Your task to perform on an android device: What is the news today? Image 0: 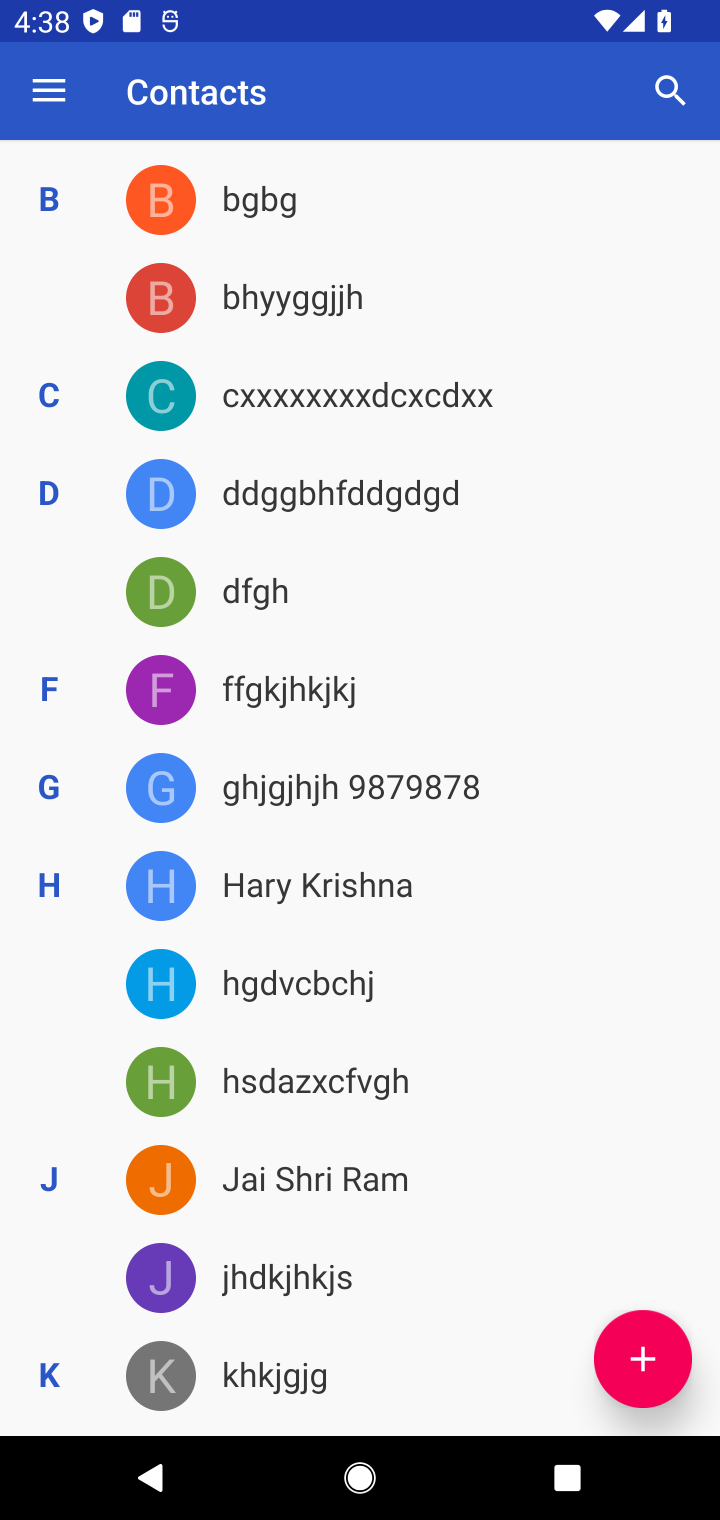
Step 0: press home button
Your task to perform on an android device: What is the news today? Image 1: 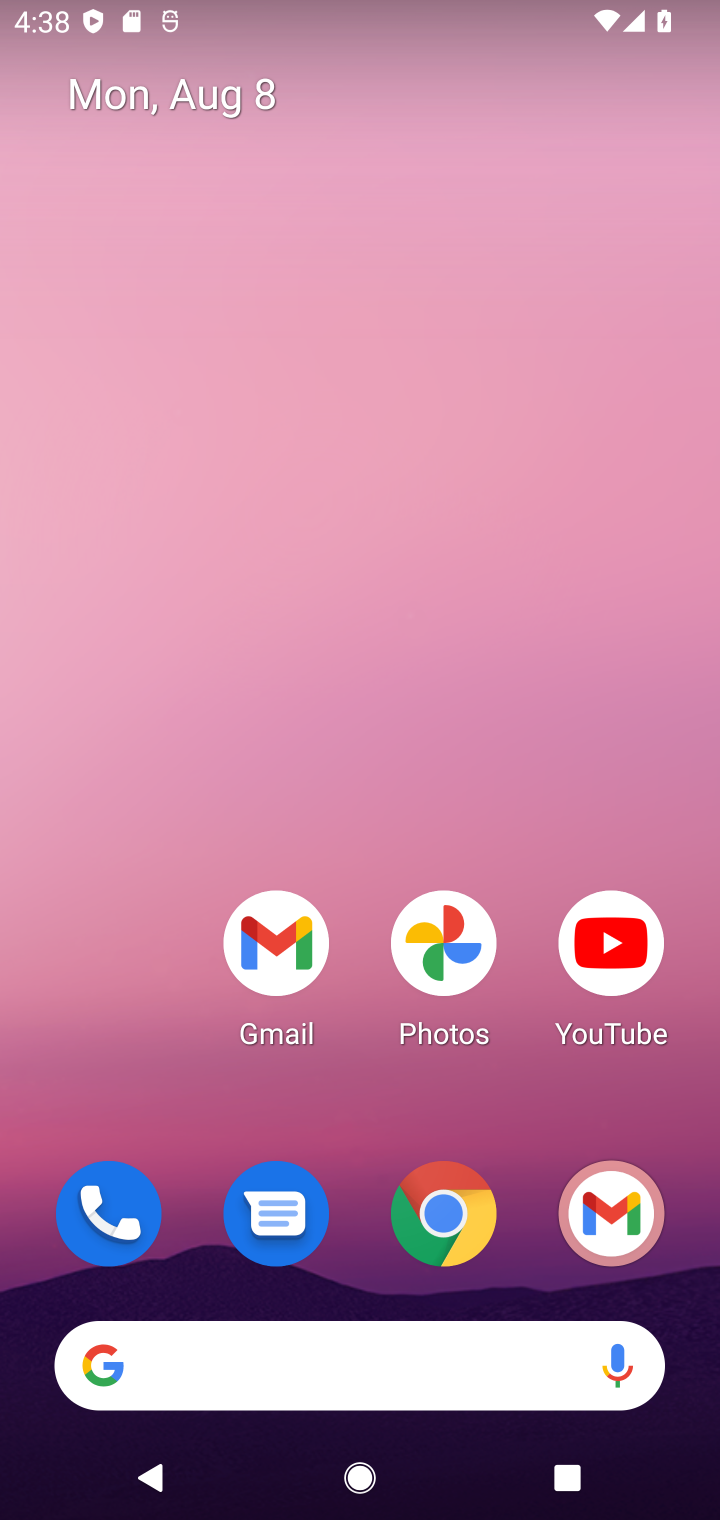
Step 1: click (333, 1353)
Your task to perform on an android device: What is the news today? Image 2: 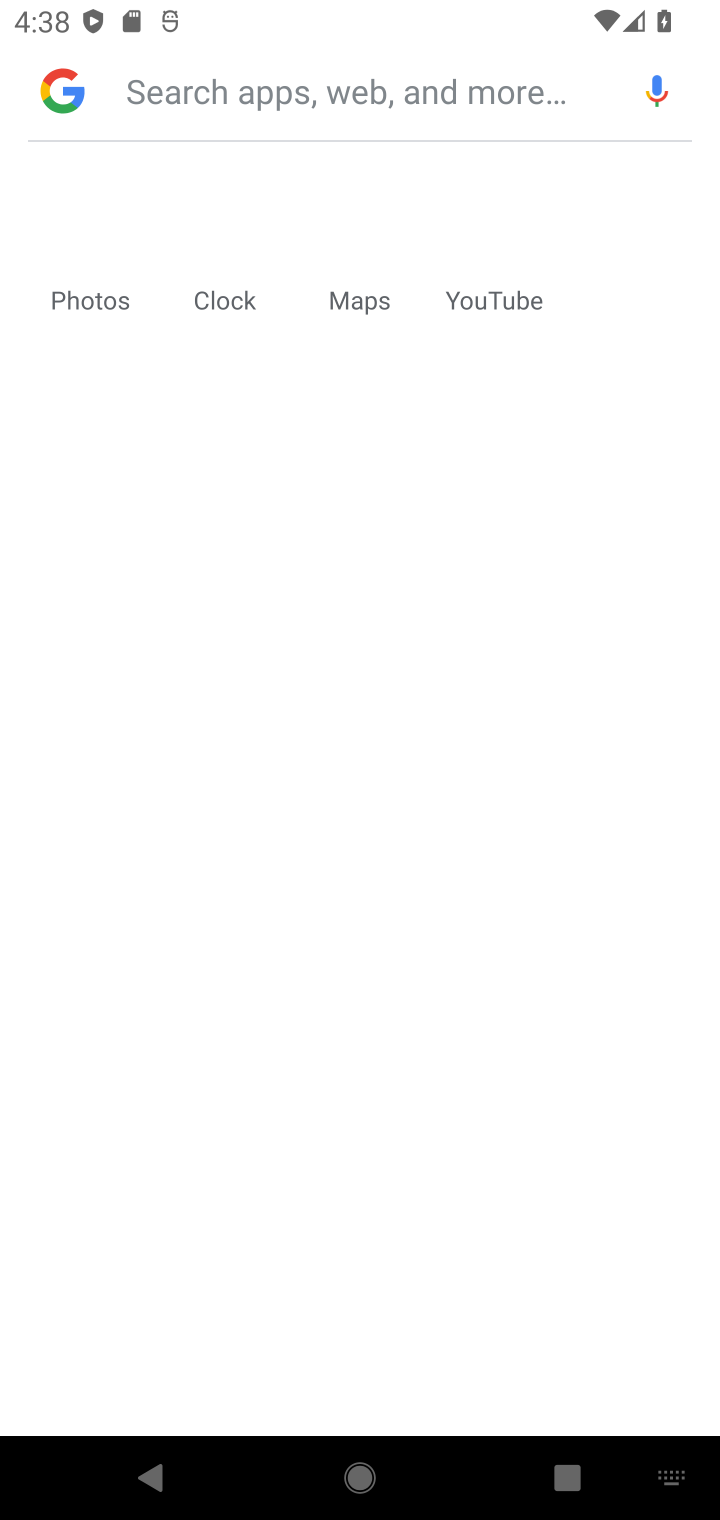
Step 2: type "what is tthe news today"
Your task to perform on an android device: What is the news today? Image 3: 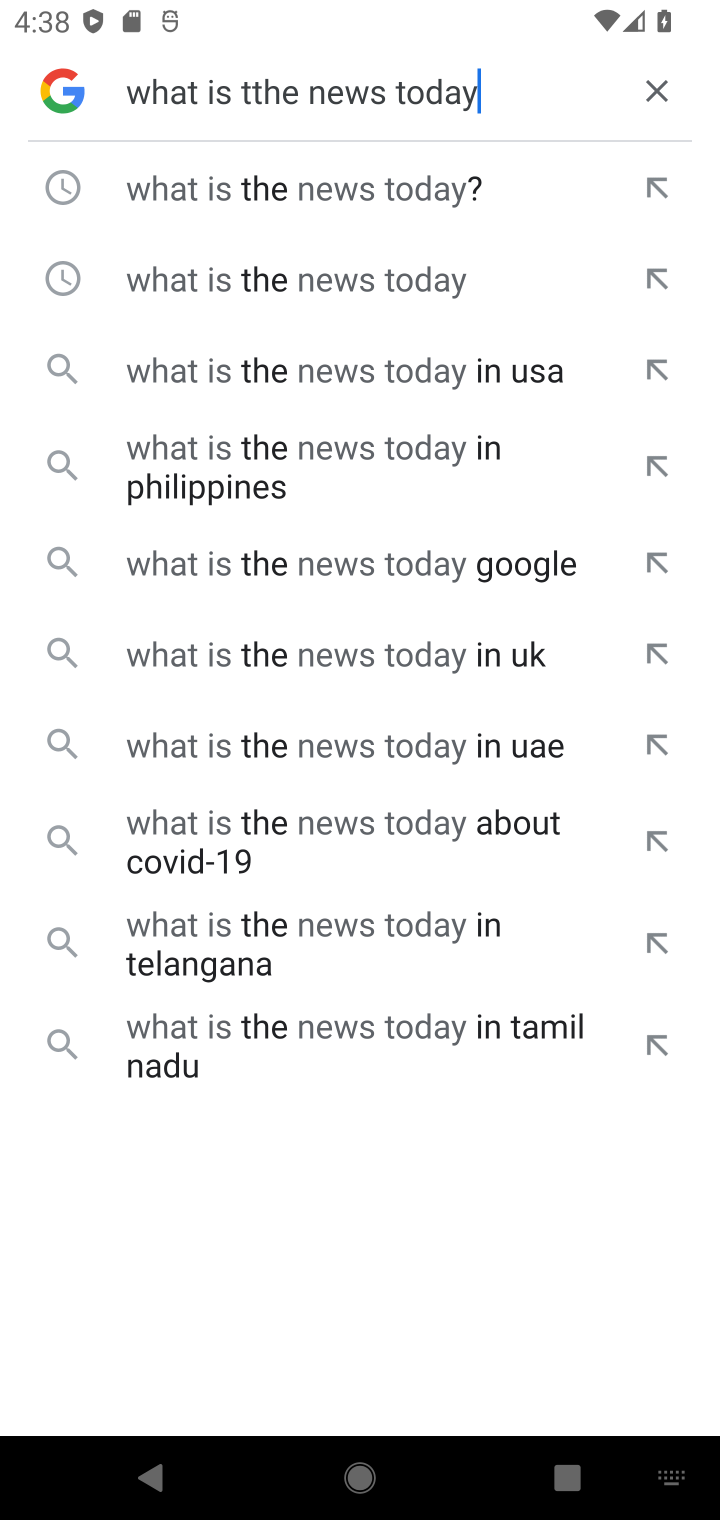
Step 3: click (422, 195)
Your task to perform on an android device: What is the news today? Image 4: 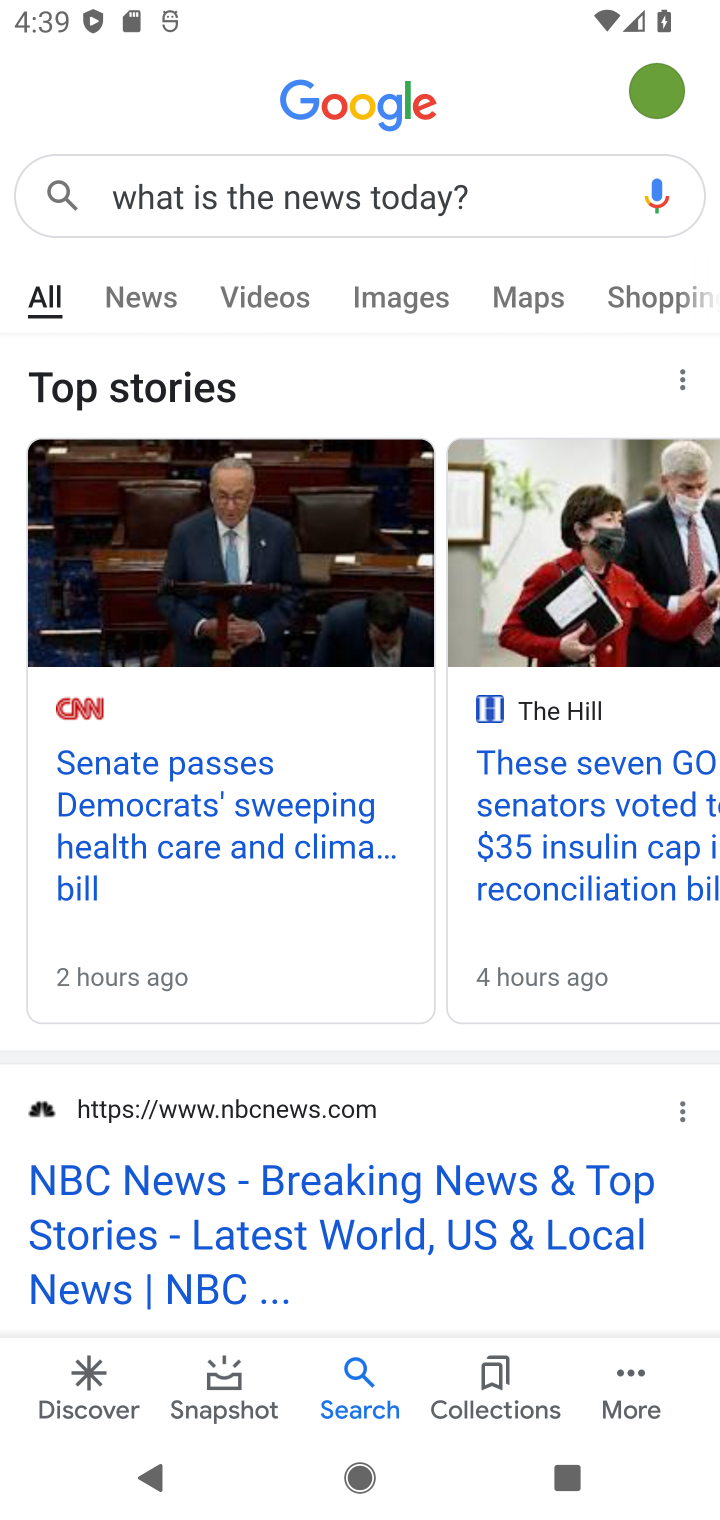
Step 4: click (128, 291)
Your task to perform on an android device: What is the news today? Image 5: 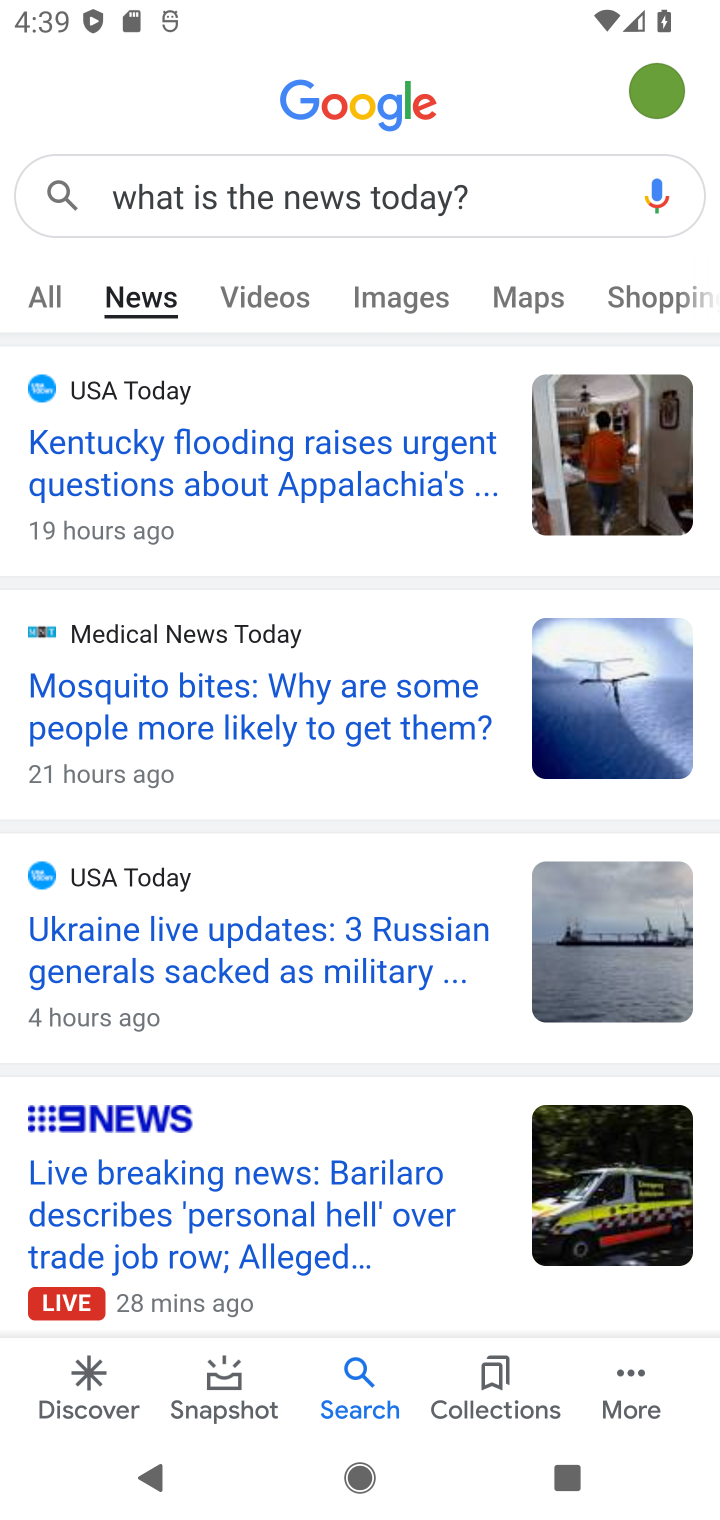
Step 5: task complete